Your task to perform on an android device: When is my next meeting? Image 0: 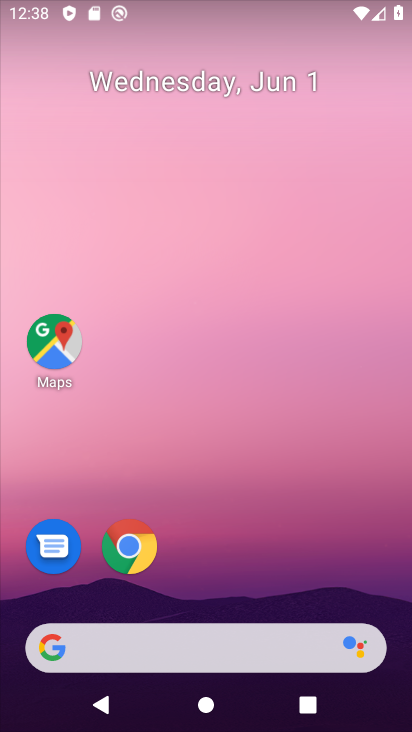
Step 0: drag from (263, 571) to (191, 143)
Your task to perform on an android device: When is my next meeting? Image 1: 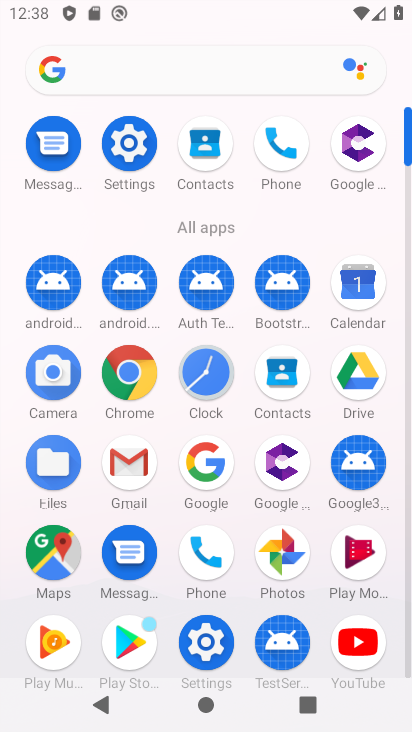
Step 1: click (346, 289)
Your task to perform on an android device: When is my next meeting? Image 2: 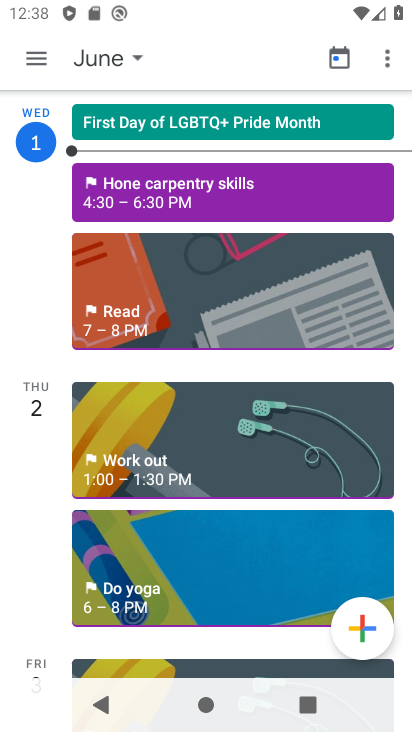
Step 2: drag from (223, 609) to (183, 253)
Your task to perform on an android device: When is my next meeting? Image 3: 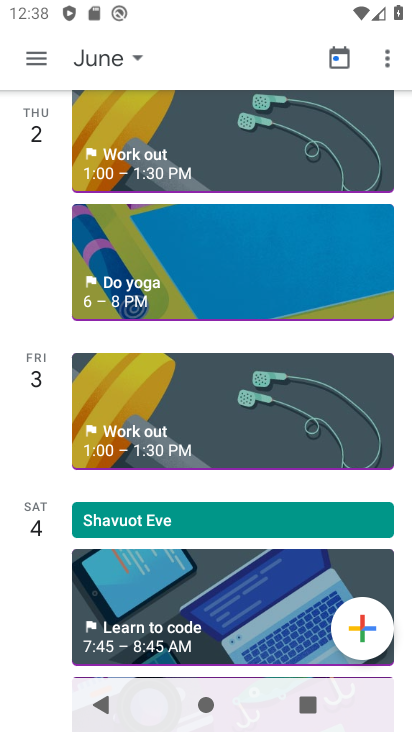
Step 3: drag from (180, 616) to (179, 257)
Your task to perform on an android device: When is my next meeting? Image 4: 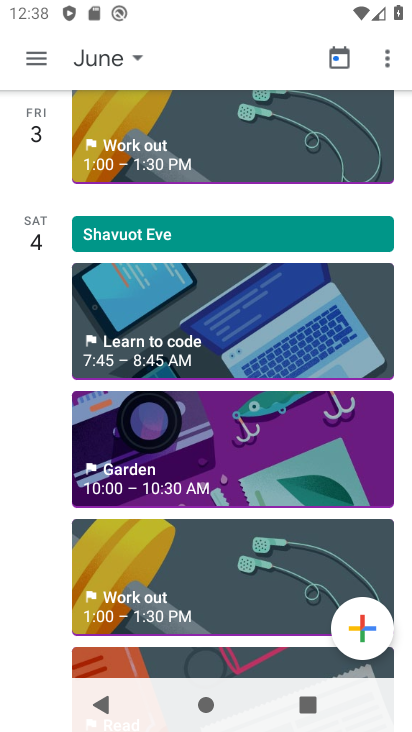
Step 4: drag from (166, 609) to (142, 158)
Your task to perform on an android device: When is my next meeting? Image 5: 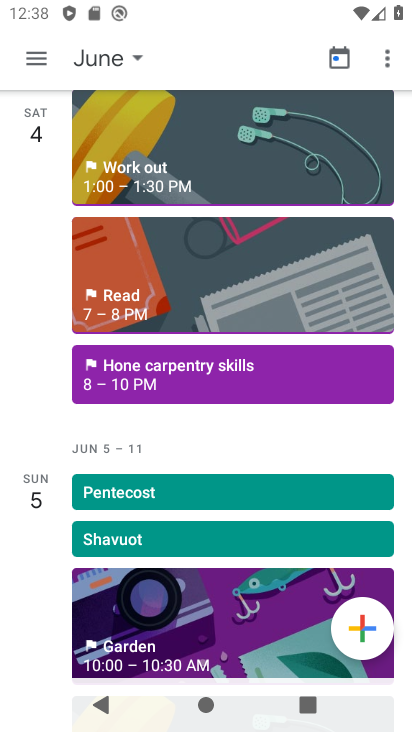
Step 5: drag from (160, 602) to (115, 96)
Your task to perform on an android device: When is my next meeting? Image 6: 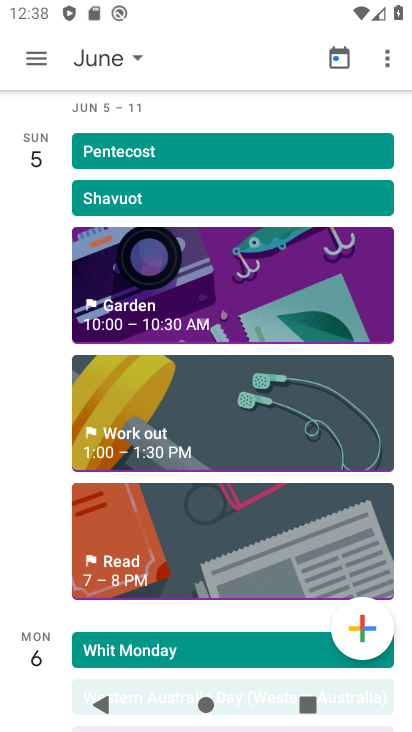
Step 6: drag from (186, 609) to (152, 306)
Your task to perform on an android device: When is my next meeting? Image 7: 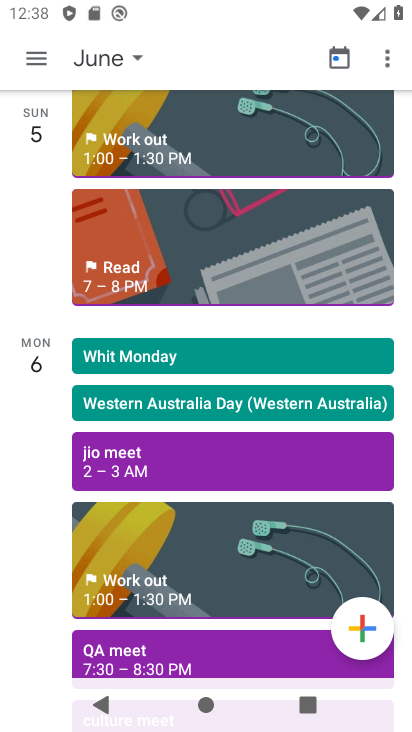
Step 7: click (140, 466)
Your task to perform on an android device: When is my next meeting? Image 8: 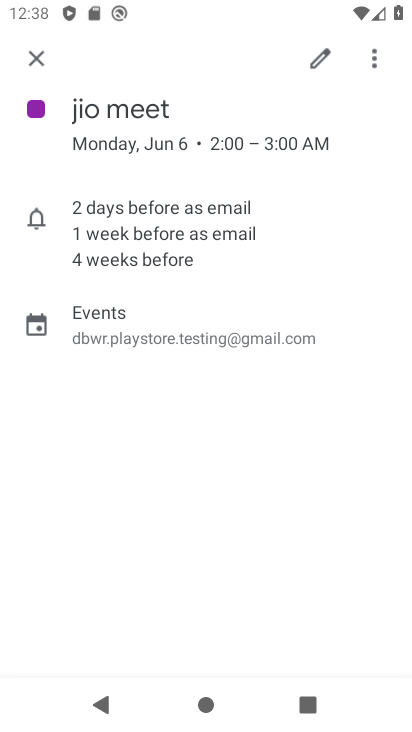
Step 8: task complete